Your task to perform on an android device: check storage Image 0: 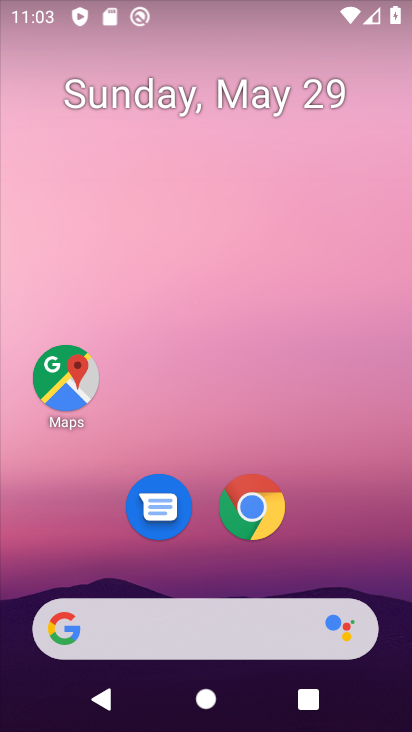
Step 0: drag from (228, 639) to (78, 187)
Your task to perform on an android device: check storage Image 1: 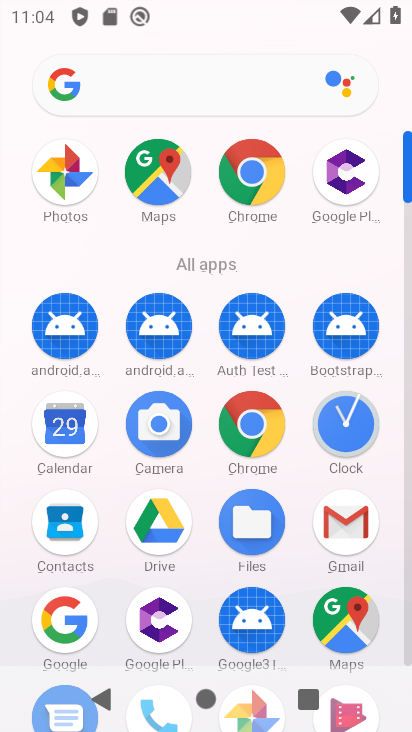
Step 1: drag from (207, 562) to (159, 356)
Your task to perform on an android device: check storage Image 2: 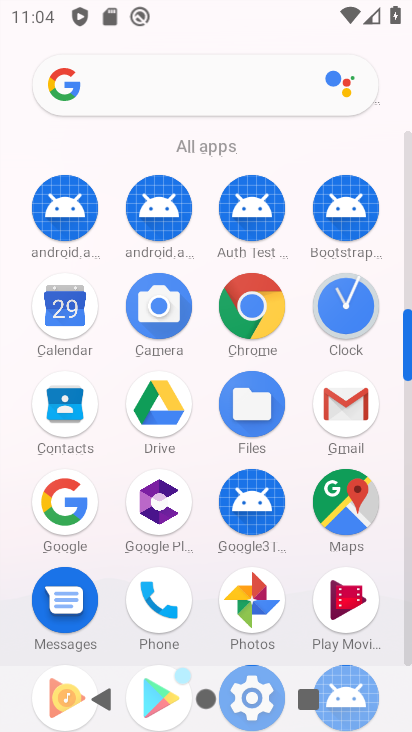
Step 2: click (253, 663)
Your task to perform on an android device: check storage Image 3: 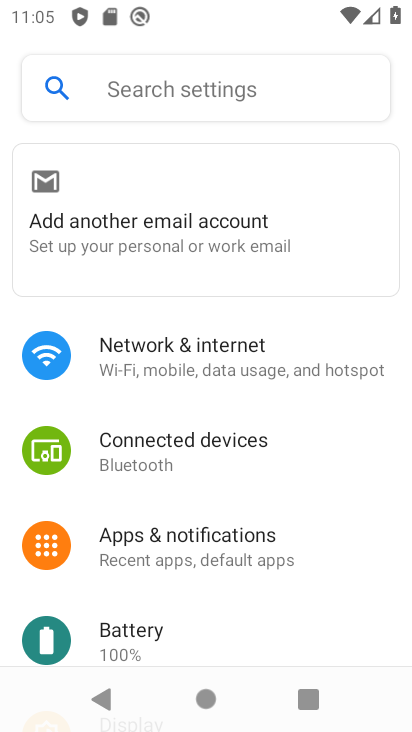
Step 3: click (134, 97)
Your task to perform on an android device: check storage Image 4: 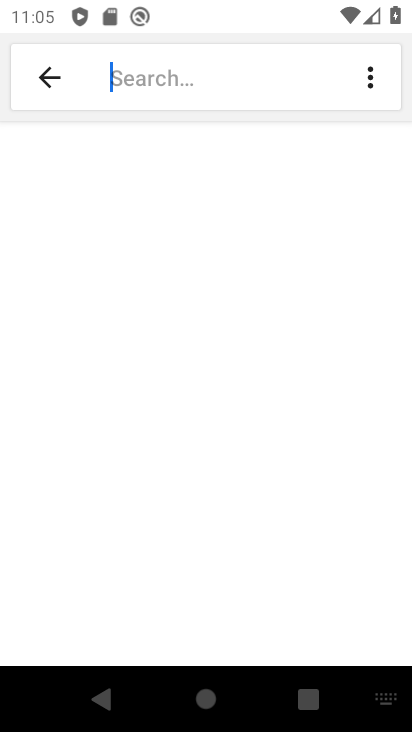
Step 4: drag from (401, 701) to (339, 442)
Your task to perform on an android device: check storage Image 5: 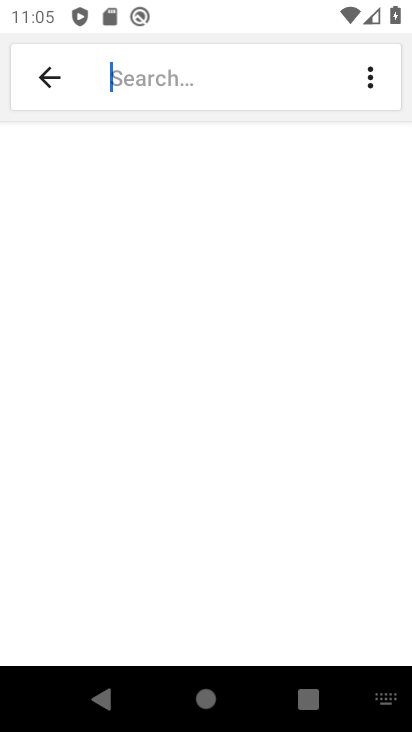
Step 5: click (386, 690)
Your task to perform on an android device: check storage Image 6: 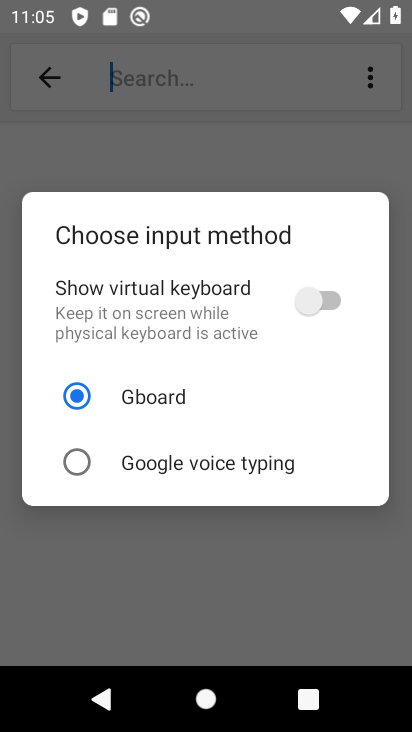
Step 6: click (323, 302)
Your task to perform on an android device: check storage Image 7: 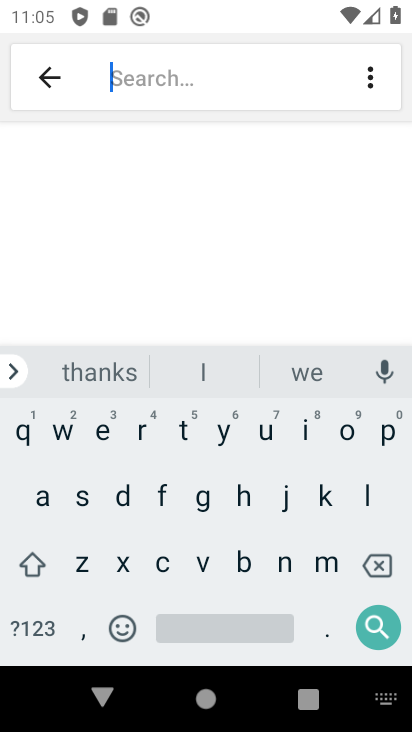
Step 7: click (75, 495)
Your task to perform on an android device: check storage Image 8: 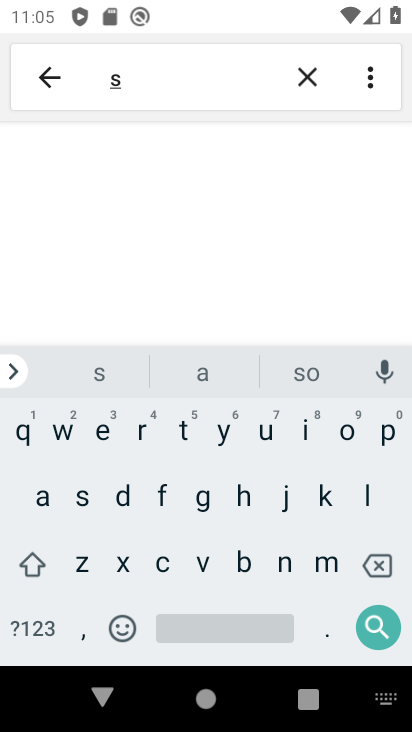
Step 8: click (181, 427)
Your task to perform on an android device: check storage Image 9: 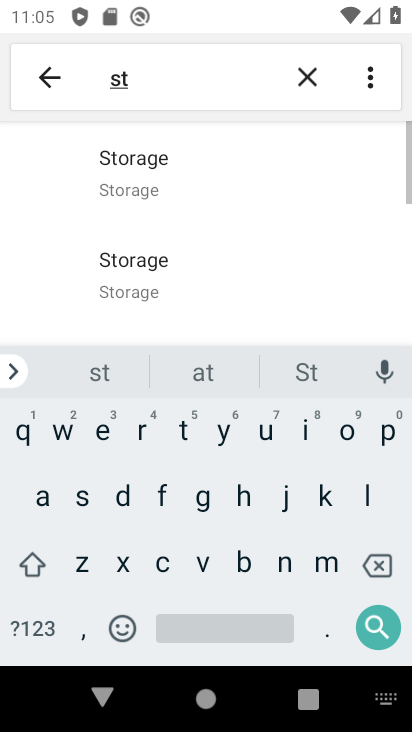
Step 9: click (176, 188)
Your task to perform on an android device: check storage Image 10: 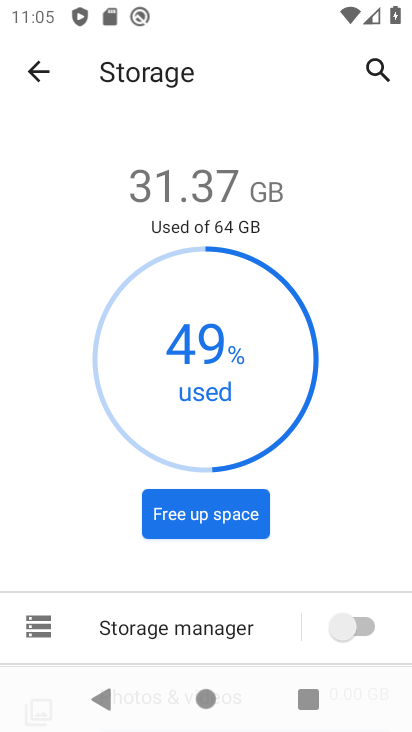
Step 10: task complete